Your task to perform on an android device: Open the calendar app, open the side menu, and click the "Day" option Image 0: 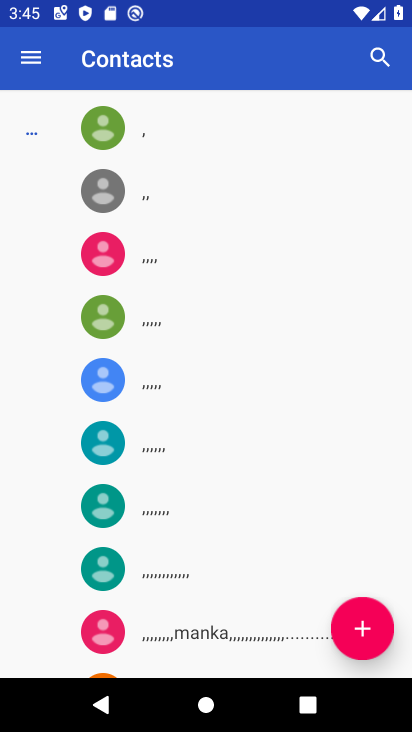
Step 0: press back button
Your task to perform on an android device: Open the calendar app, open the side menu, and click the "Day" option Image 1: 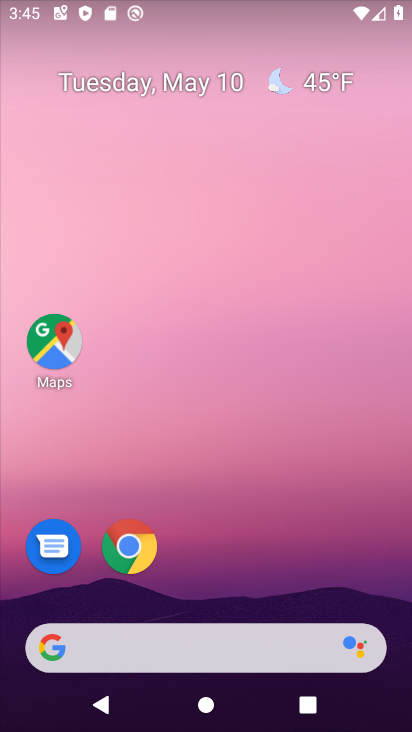
Step 1: drag from (171, 583) to (246, 86)
Your task to perform on an android device: Open the calendar app, open the side menu, and click the "Day" option Image 2: 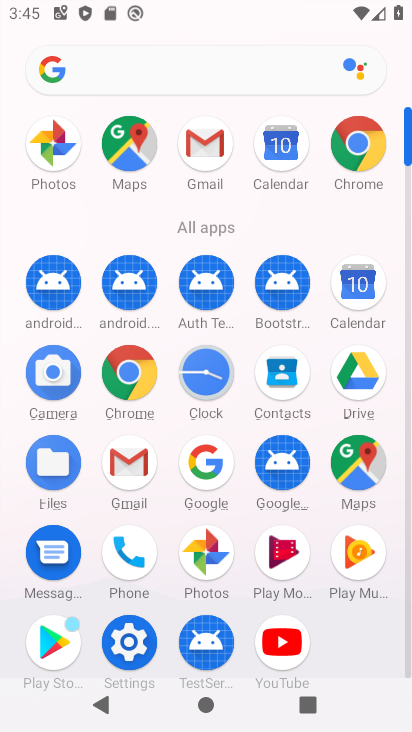
Step 2: click (352, 278)
Your task to perform on an android device: Open the calendar app, open the side menu, and click the "Day" option Image 3: 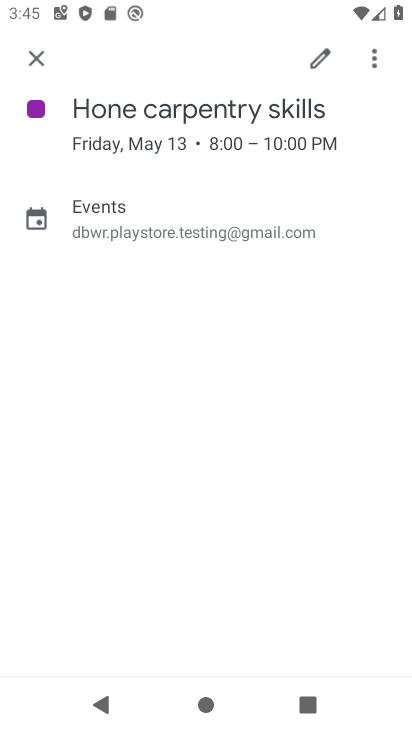
Step 3: click (28, 56)
Your task to perform on an android device: Open the calendar app, open the side menu, and click the "Day" option Image 4: 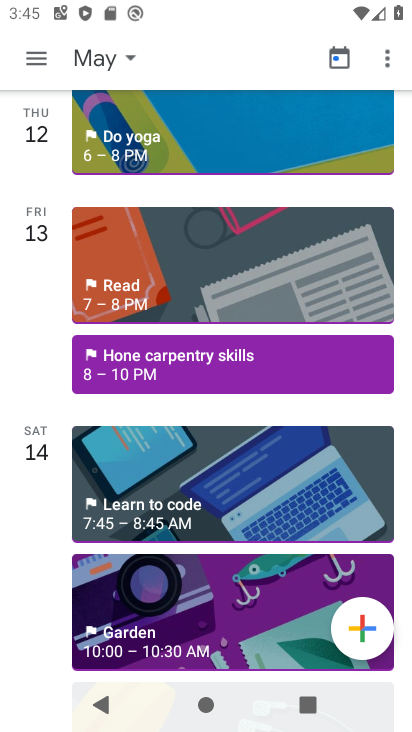
Step 4: click (37, 52)
Your task to perform on an android device: Open the calendar app, open the side menu, and click the "Day" option Image 5: 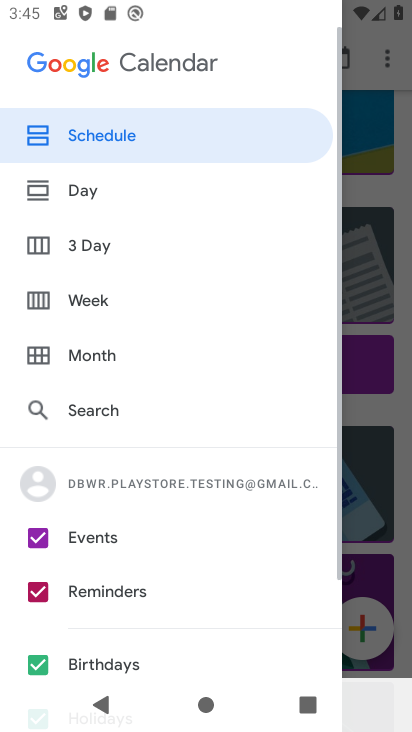
Step 5: click (91, 180)
Your task to perform on an android device: Open the calendar app, open the side menu, and click the "Day" option Image 6: 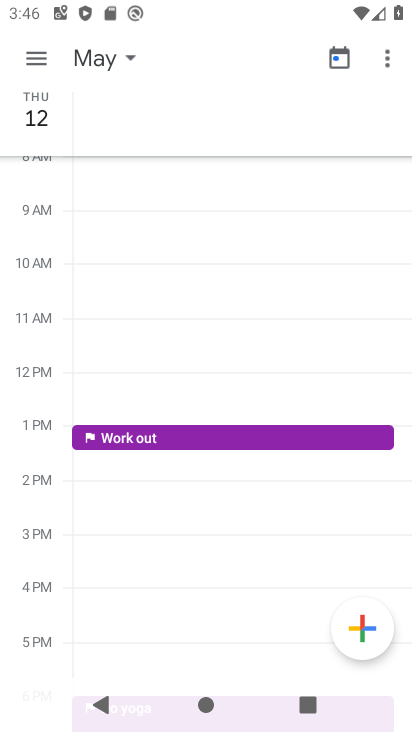
Step 6: task complete